Your task to perform on an android device: open a bookmark in the chrome app Image 0: 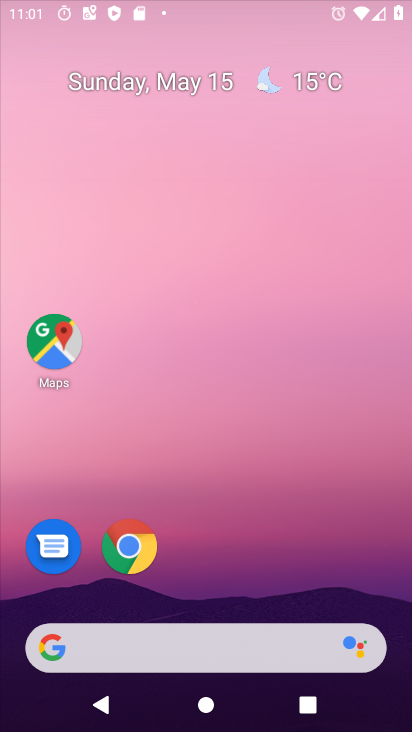
Step 0: task impossible